Your task to perform on an android device: toggle wifi Image 0: 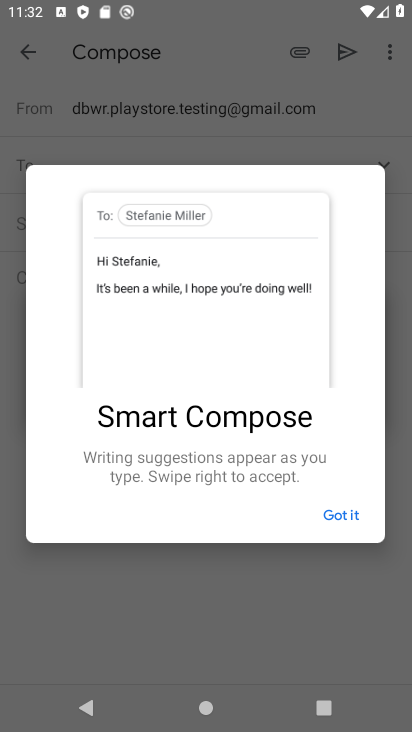
Step 0: press home button
Your task to perform on an android device: toggle wifi Image 1: 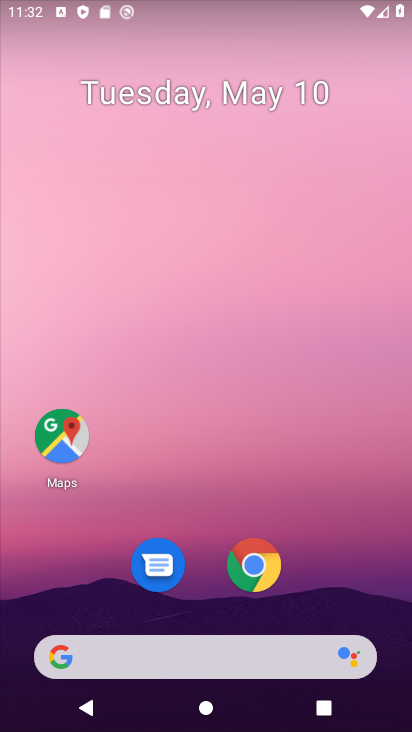
Step 1: drag from (252, 8) to (263, 521)
Your task to perform on an android device: toggle wifi Image 2: 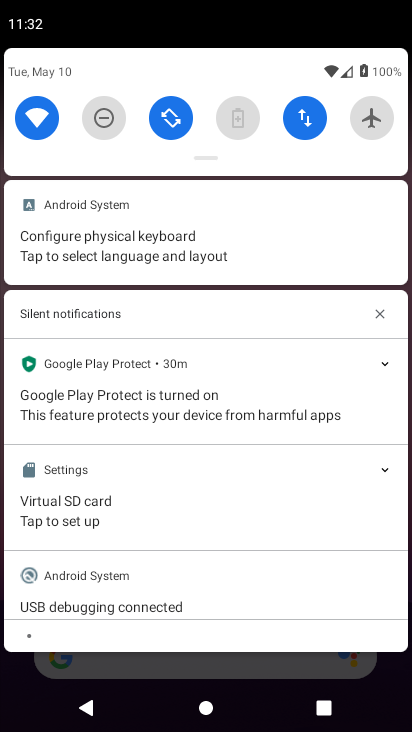
Step 2: click (40, 119)
Your task to perform on an android device: toggle wifi Image 3: 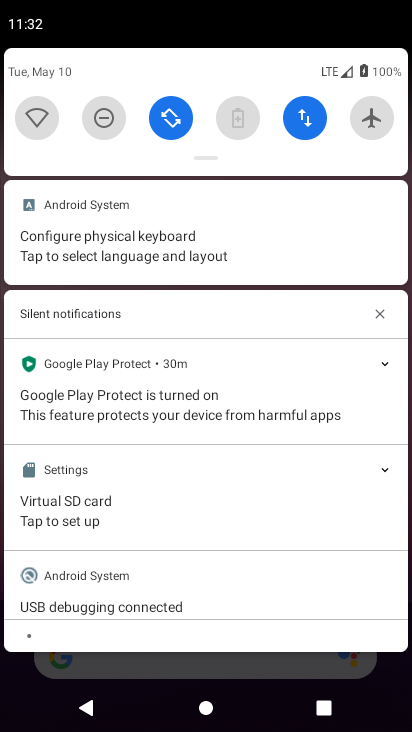
Step 3: task complete